Your task to perform on an android device: Open the web browser Image 0: 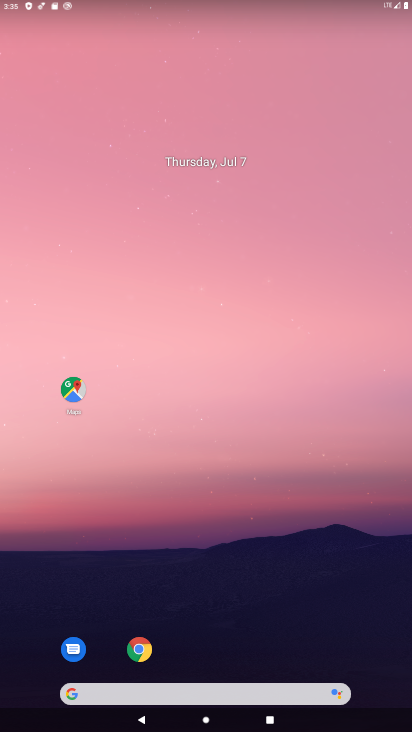
Step 0: drag from (214, 604) to (240, 316)
Your task to perform on an android device: Open the web browser Image 1: 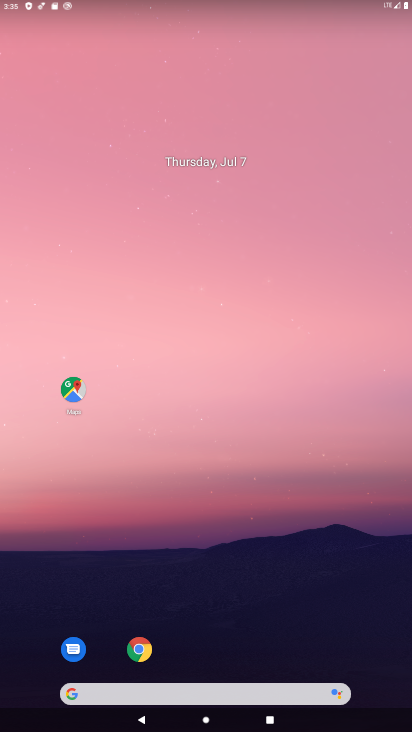
Step 1: drag from (218, 614) to (231, 71)
Your task to perform on an android device: Open the web browser Image 2: 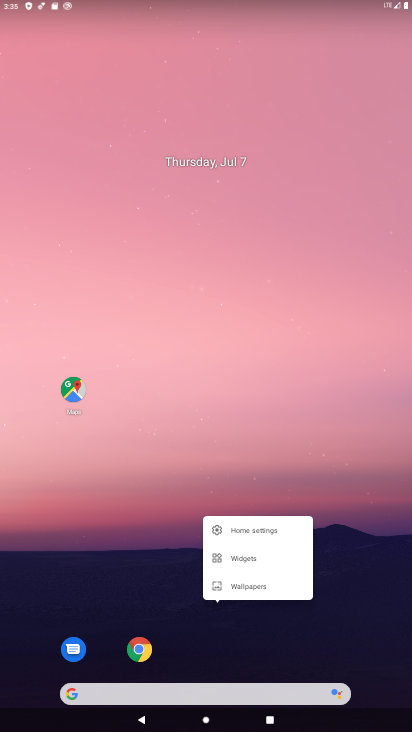
Step 2: click (241, 399)
Your task to perform on an android device: Open the web browser Image 3: 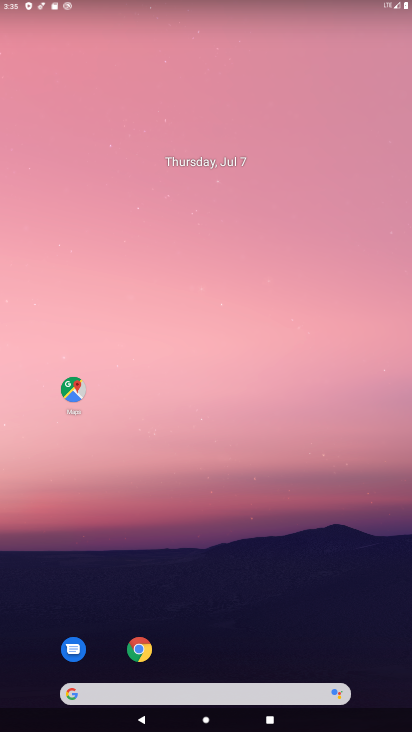
Step 3: drag from (204, 635) to (278, 103)
Your task to perform on an android device: Open the web browser Image 4: 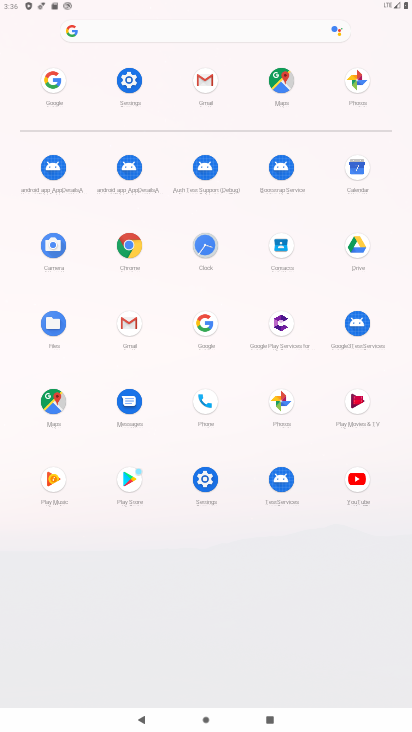
Step 4: drag from (239, 439) to (232, 304)
Your task to perform on an android device: Open the web browser Image 5: 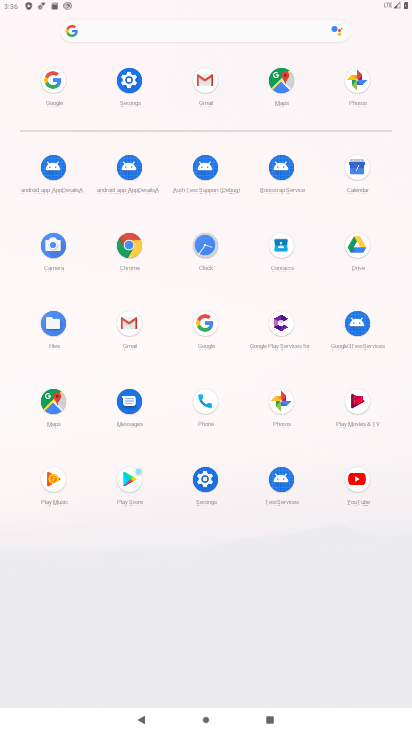
Step 5: click (132, 264)
Your task to perform on an android device: Open the web browser Image 6: 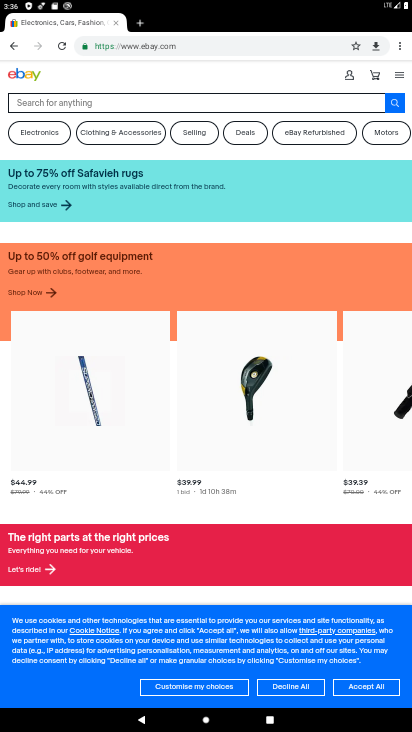
Step 6: task complete